Your task to perform on an android device: Show me popular games on the Play Store Image 0: 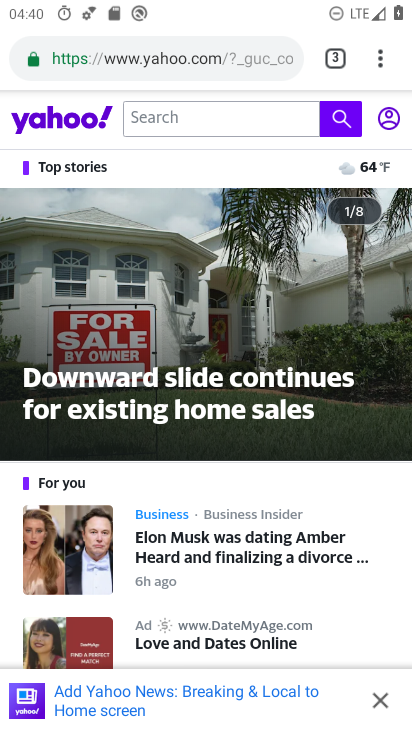
Step 0: press back button
Your task to perform on an android device: Show me popular games on the Play Store Image 1: 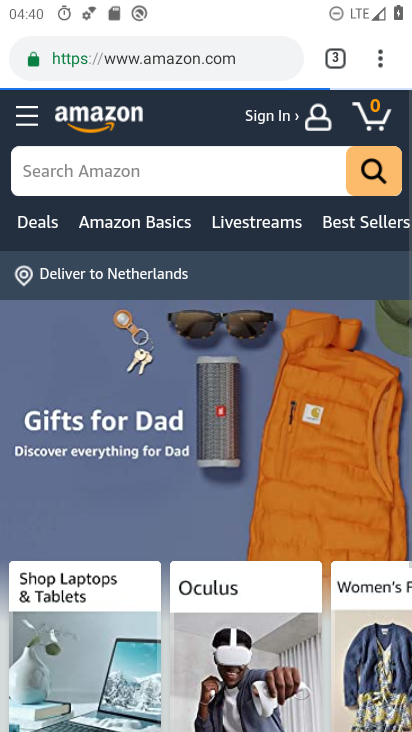
Step 1: press back button
Your task to perform on an android device: Show me popular games on the Play Store Image 2: 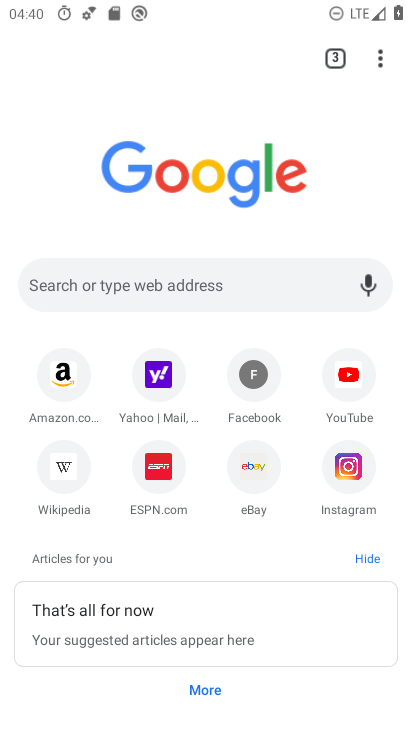
Step 2: press back button
Your task to perform on an android device: Show me popular games on the Play Store Image 3: 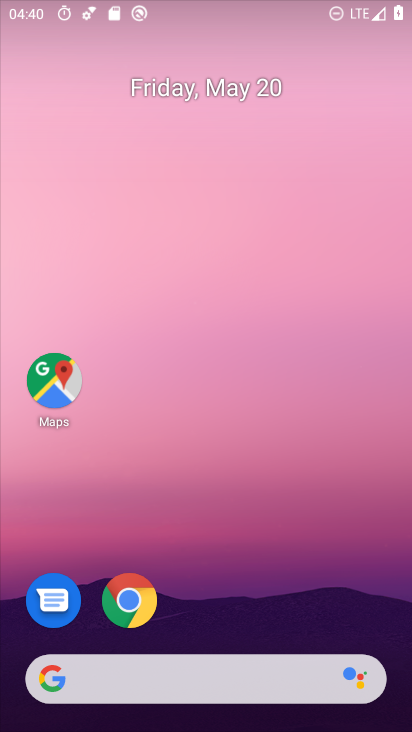
Step 3: drag from (211, 595) to (290, 65)
Your task to perform on an android device: Show me popular games on the Play Store Image 4: 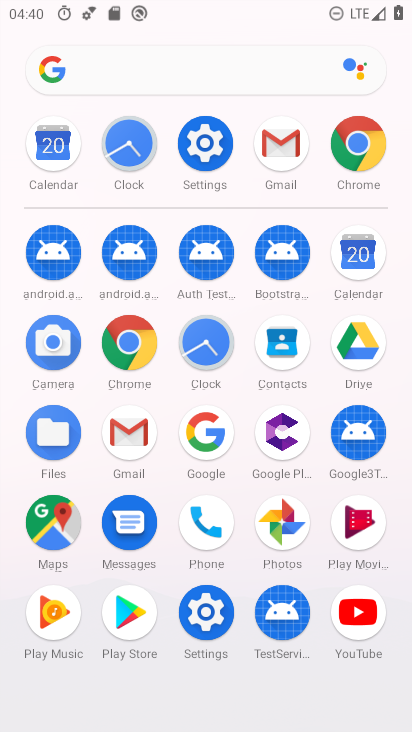
Step 4: click (135, 618)
Your task to perform on an android device: Show me popular games on the Play Store Image 5: 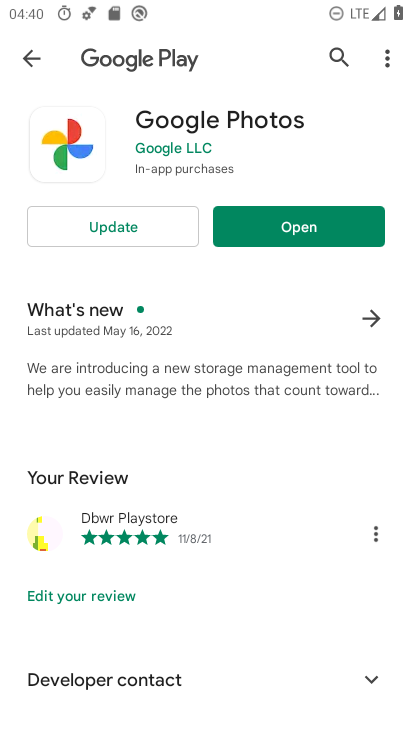
Step 5: click (30, 55)
Your task to perform on an android device: Show me popular games on the Play Store Image 6: 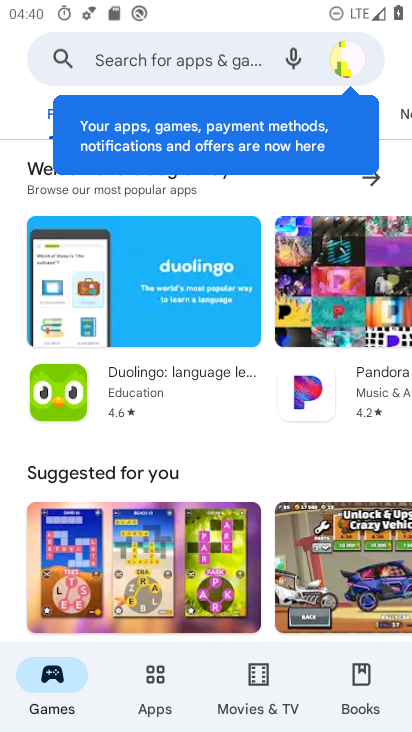
Step 6: drag from (188, 558) to (310, 109)
Your task to perform on an android device: Show me popular games on the Play Store Image 7: 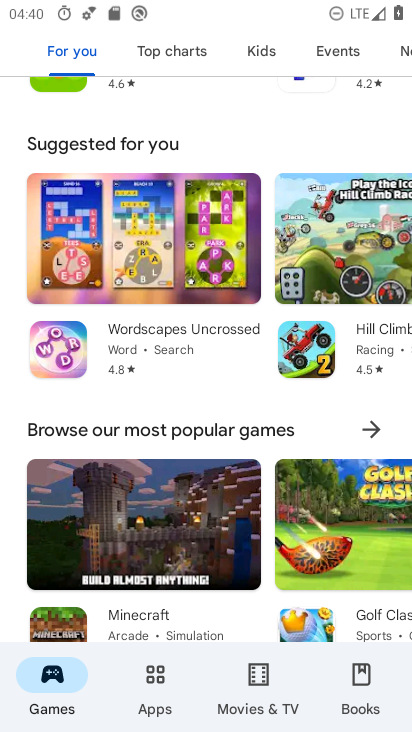
Step 7: click (387, 434)
Your task to perform on an android device: Show me popular games on the Play Store Image 8: 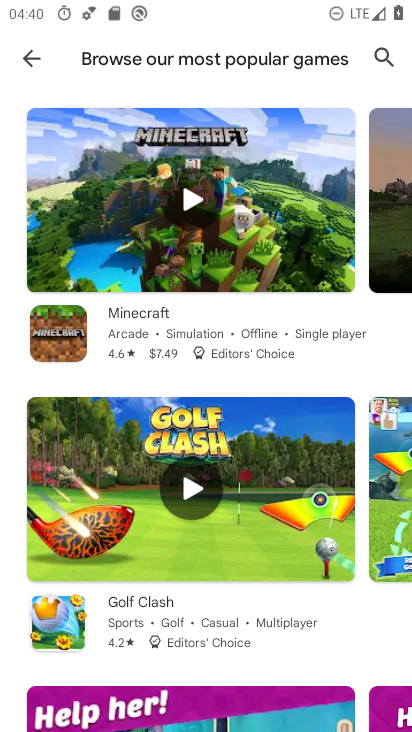
Step 8: task complete